Your task to perform on an android device: Search for Mexican restaurants on Maps Image 0: 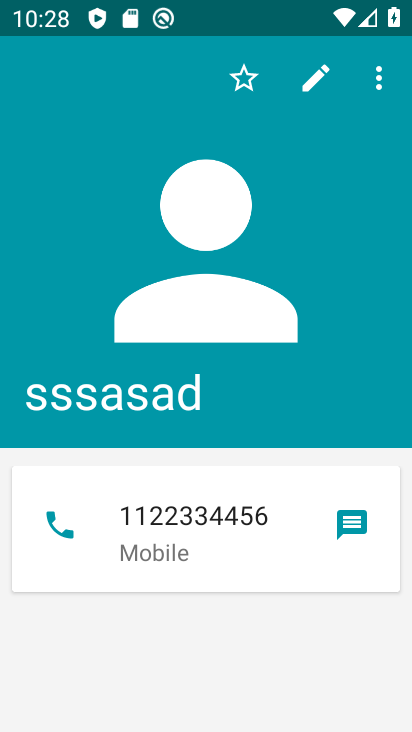
Step 0: press home button
Your task to perform on an android device: Search for Mexican restaurants on Maps Image 1: 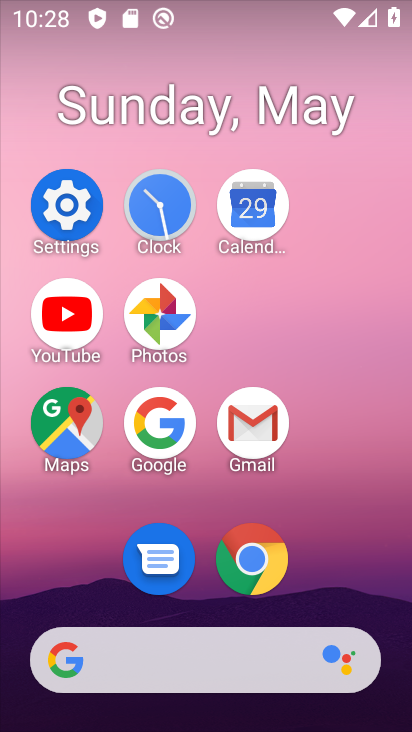
Step 1: click (80, 458)
Your task to perform on an android device: Search for Mexican restaurants on Maps Image 2: 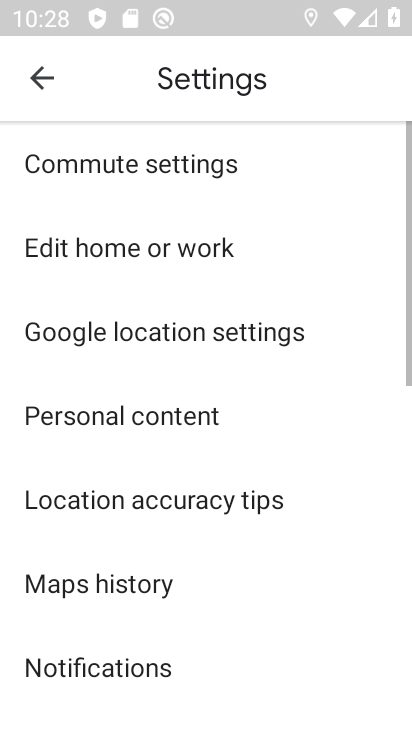
Step 2: click (53, 64)
Your task to perform on an android device: Search for Mexican restaurants on Maps Image 3: 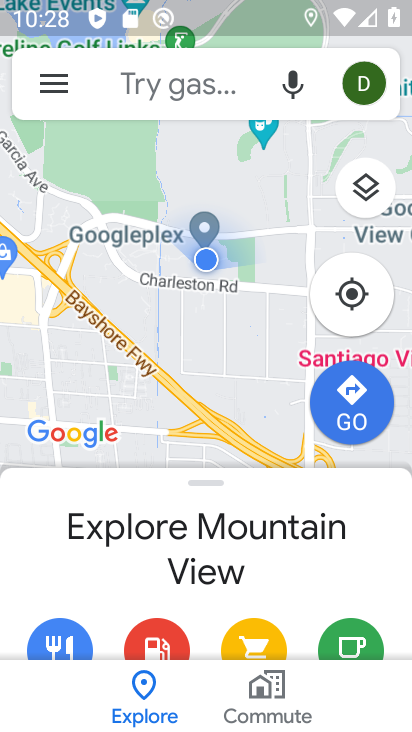
Step 3: click (133, 87)
Your task to perform on an android device: Search for Mexican restaurants on Maps Image 4: 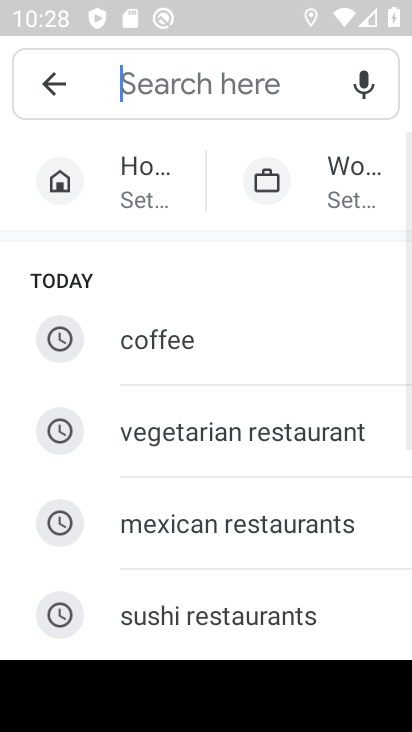
Step 4: click (295, 511)
Your task to perform on an android device: Search for Mexican restaurants on Maps Image 5: 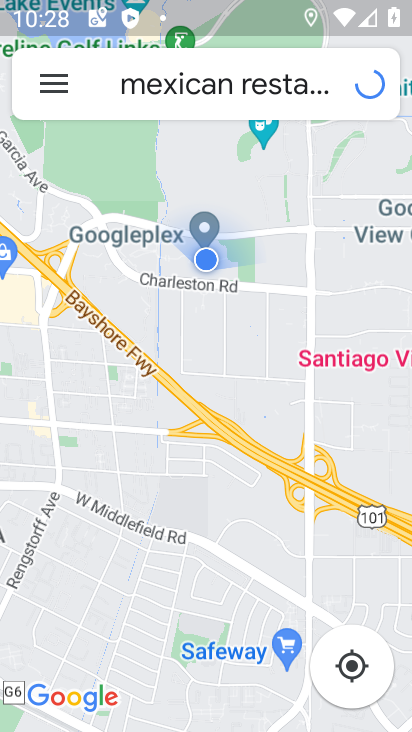
Step 5: task complete